Your task to perform on an android device: Open privacy settings Image 0: 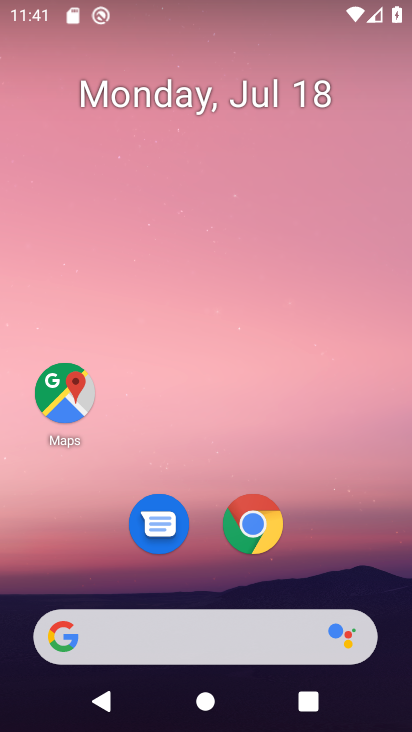
Step 0: drag from (340, 548) to (376, 32)
Your task to perform on an android device: Open privacy settings Image 1: 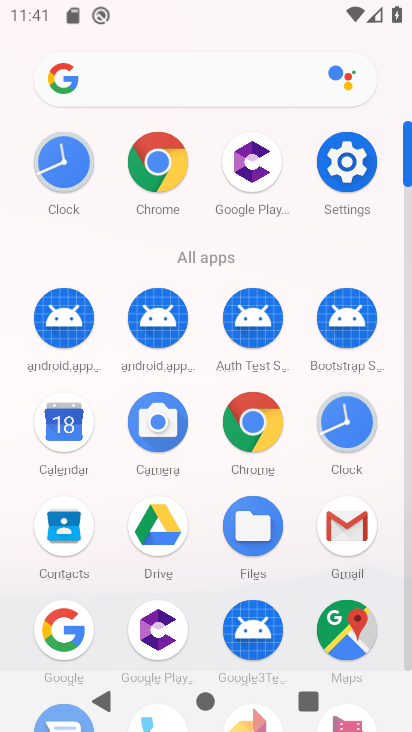
Step 1: click (354, 154)
Your task to perform on an android device: Open privacy settings Image 2: 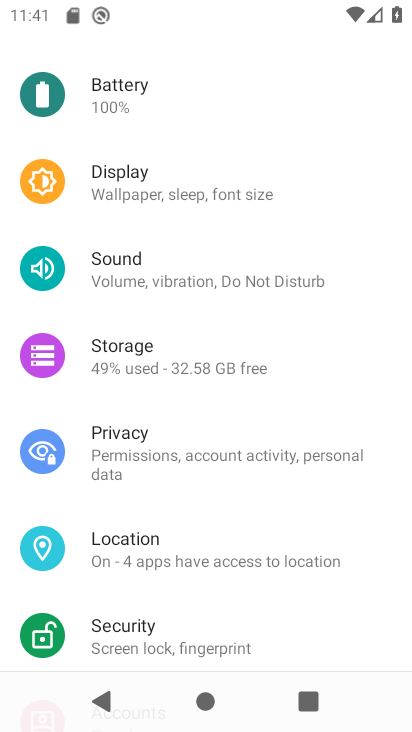
Step 2: click (207, 447)
Your task to perform on an android device: Open privacy settings Image 3: 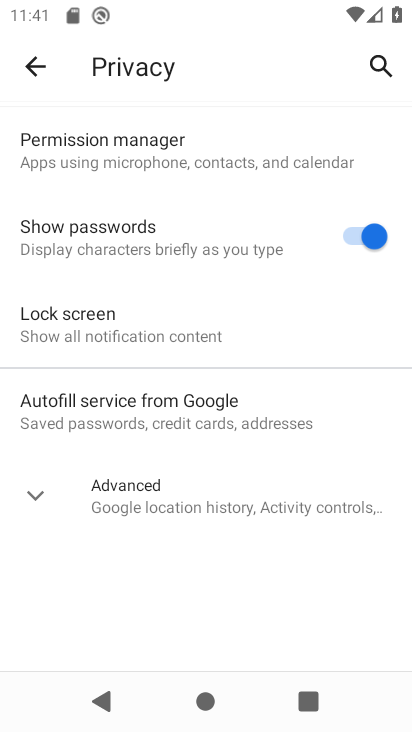
Step 3: task complete